Your task to perform on an android device: Open calendar and show me the first week of next month Image 0: 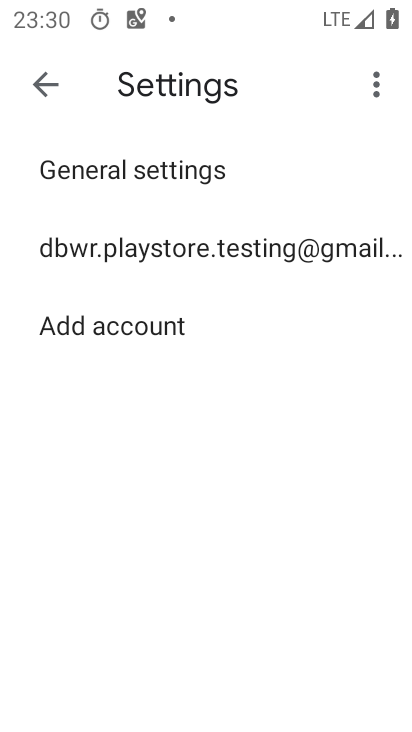
Step 0: press home button
Your task to perform on an android device: Open calendar and show me the first week of next month Image 1: 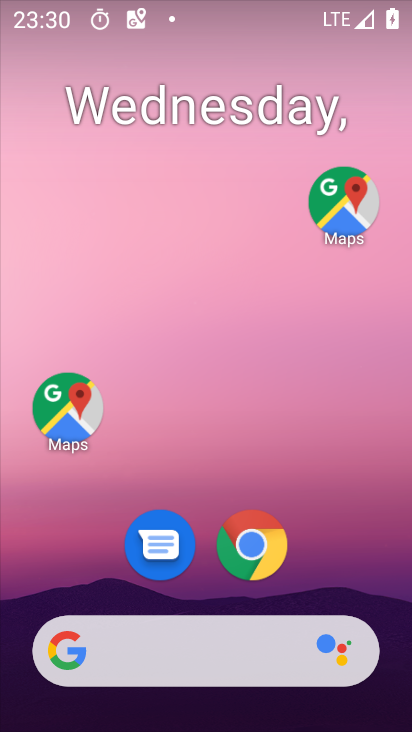
Step 1: drag from (341, 587) to (408, 53)
Your task to perform on an android device: Open calendar and show me the first week of next month Image 2: 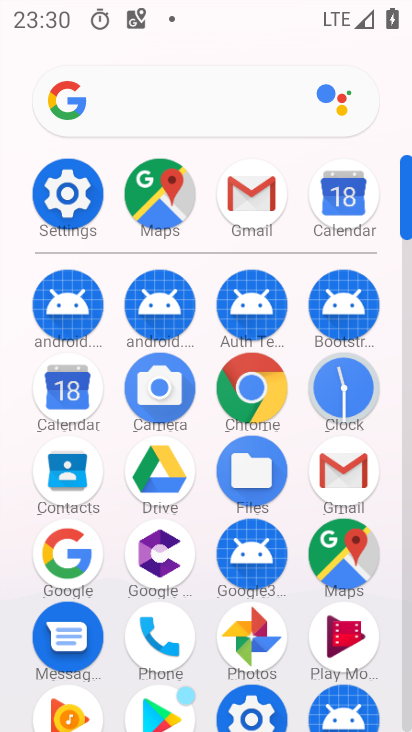
Step 2: click (71, 383)
Your task to perform on an android device: Open calendar and show me the first week of next month Image 3: 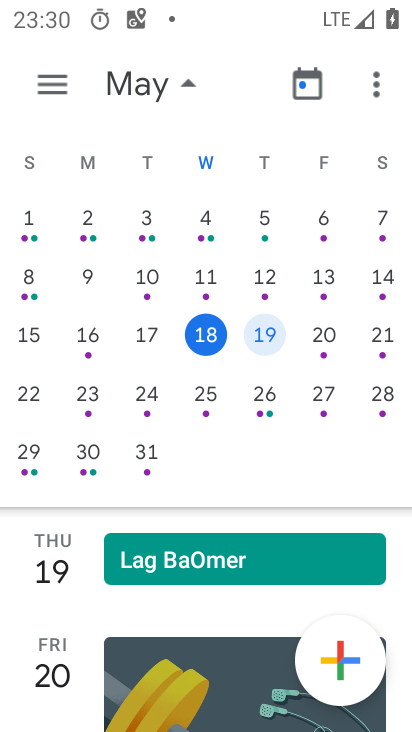
Step 3: drag from (396, 288) to (51, 310)
Your task to perform on an android device: Open calendar and show me the first week of next month Image 4: 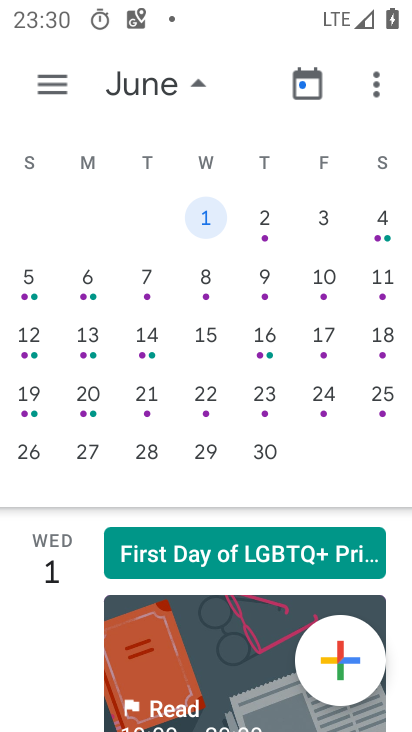
Step 4: click (206, 214)
Your task to perform on an android device: Open calendar and show me the first week of next month Image 5: 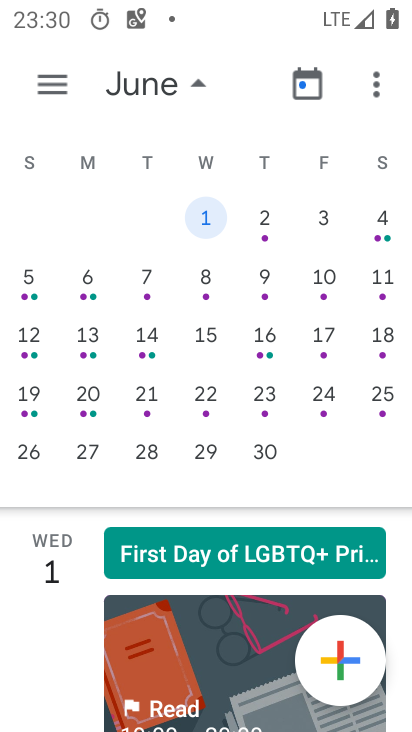
Step 5: task complete